Your task to perform on an android device: toggle improve location accuracy Image 0: 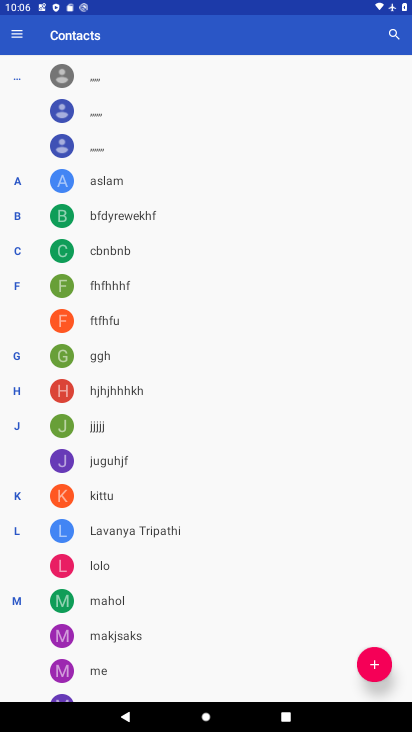
Step 0: task complete